Your task to perform on an android device: search for accent chairs on article.com Image 0: 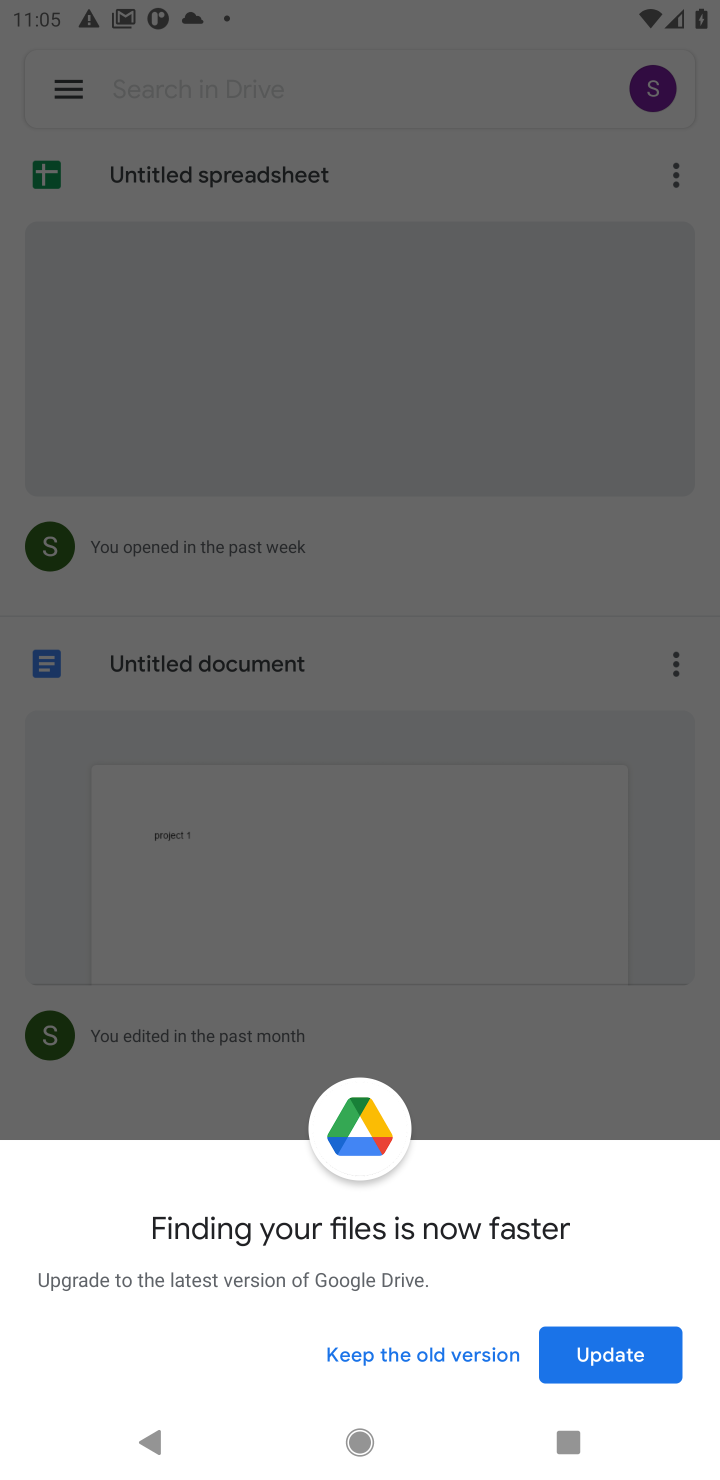
Step 0: press home button
Your task to perform on an android device: search for accent chairs on article.com Image 1: 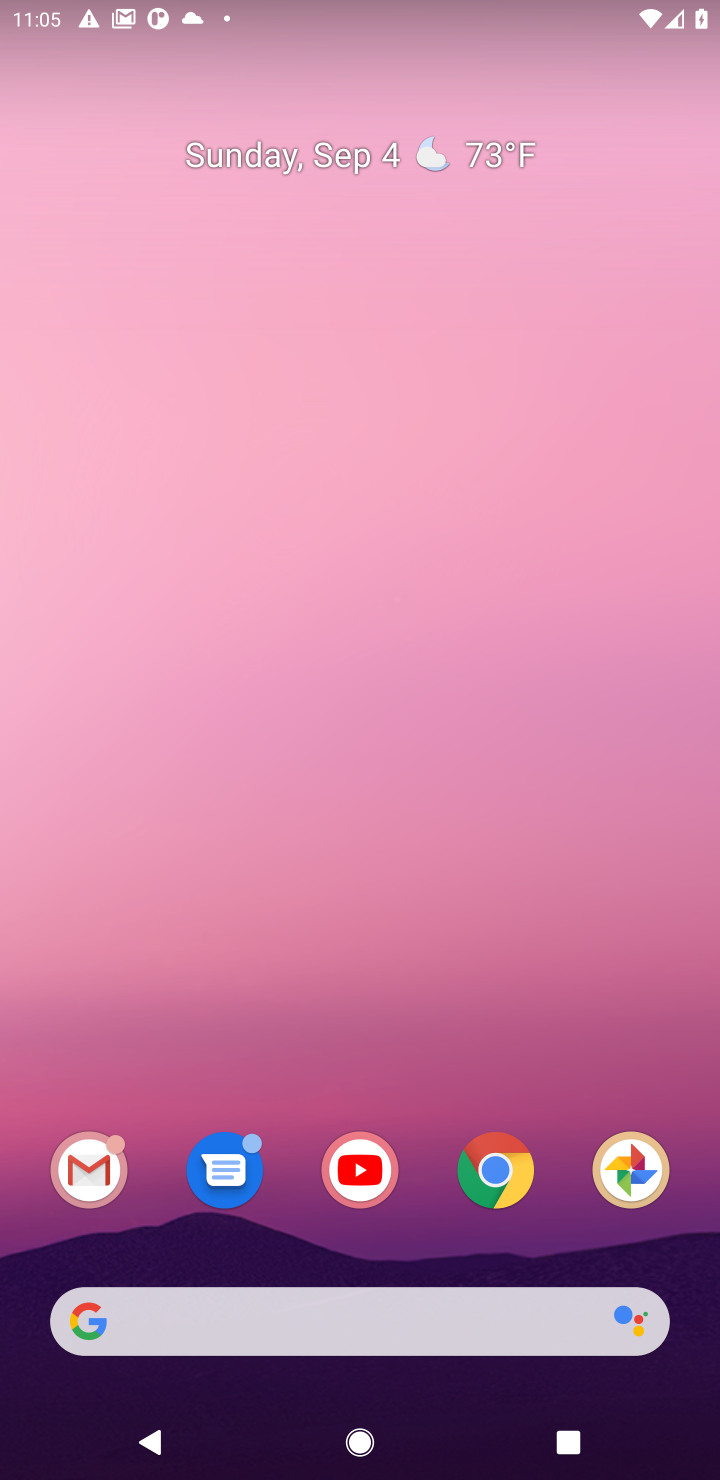
Step 1: drag from (375, 1273) to (472, 4)
Your task to perform on an android device: search for accent chairs on article.com Image 2: 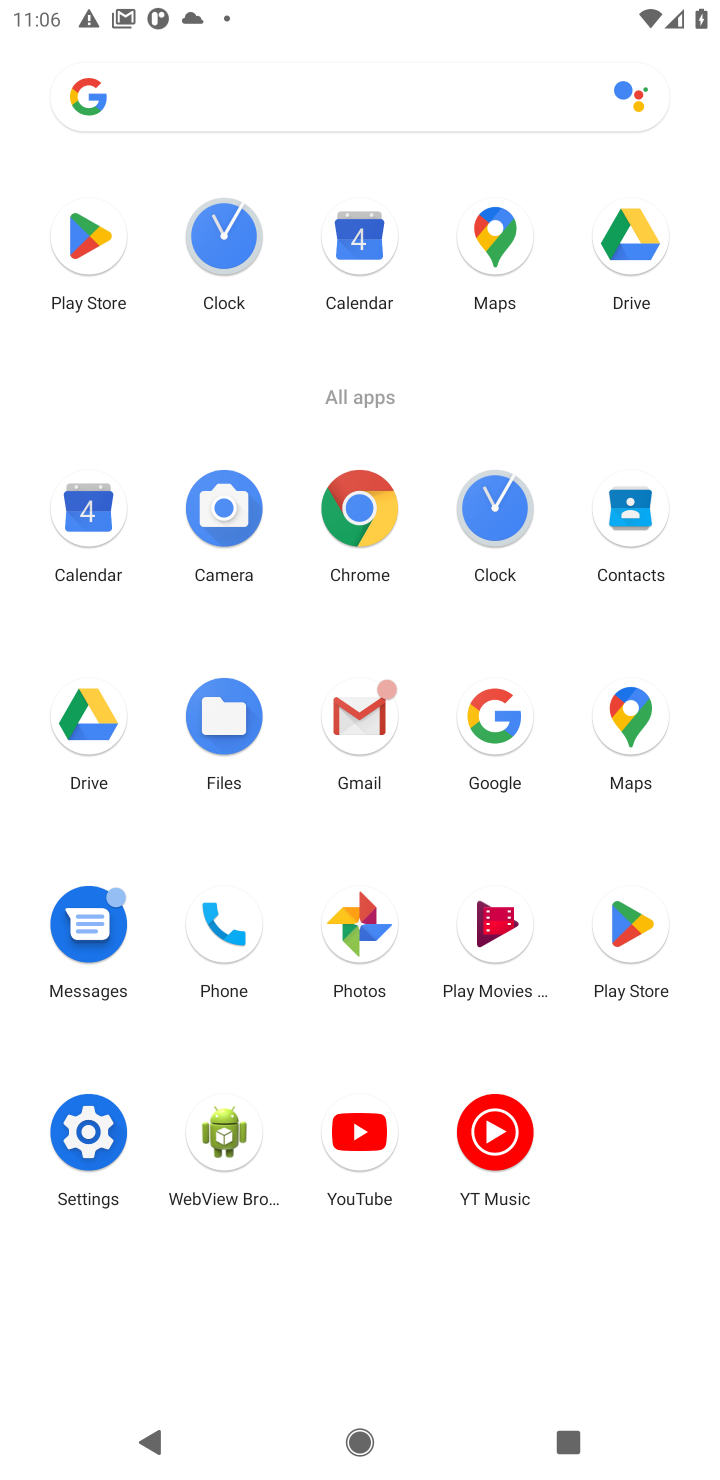
Step 2: click (343, 475)
Your task to perform on an android device: search for accent chairs on article.com Image 3: 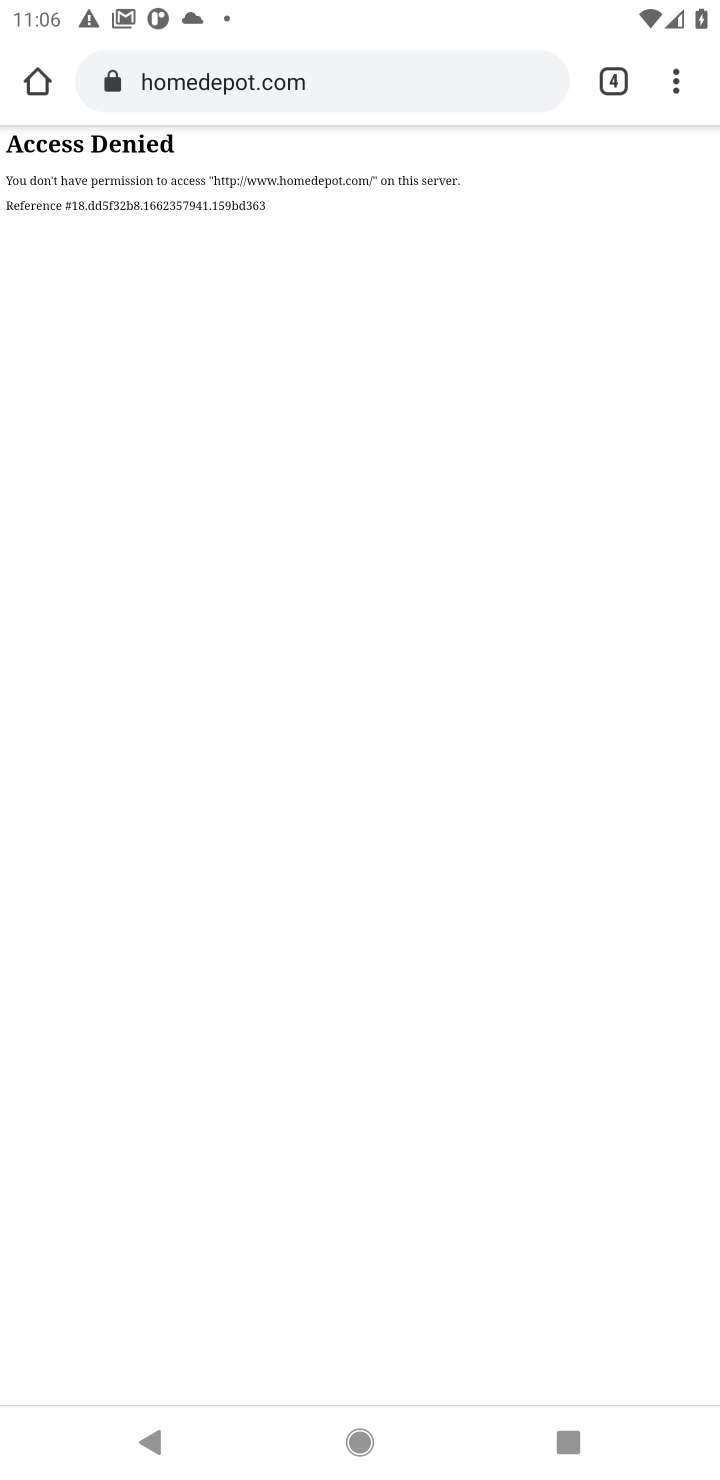
Step 3: click (612, 98)
Your task to perform on an android device: search for accent chairs on article.com Image 4: 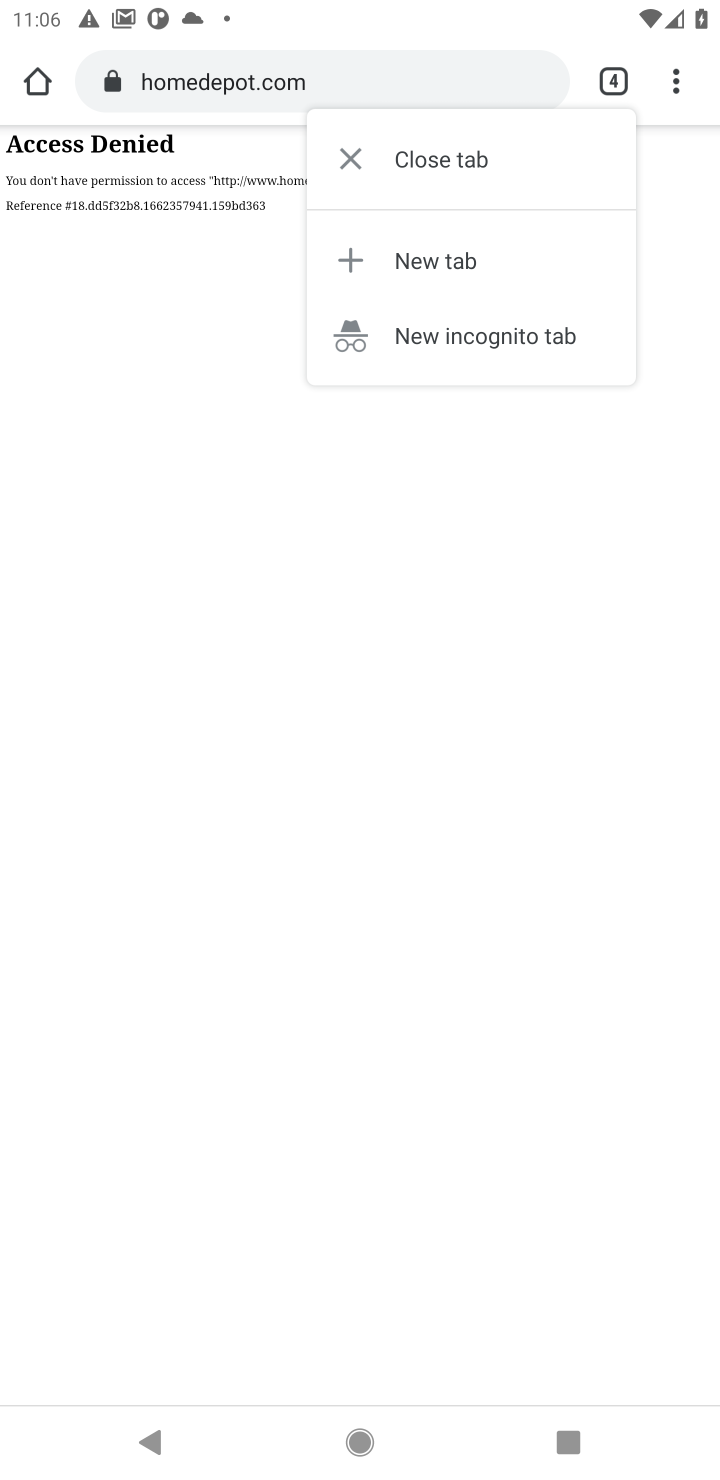
Step 4: click (449, 244)
Your task to perform on an android device: search for accent chairs on article.com Image 5: 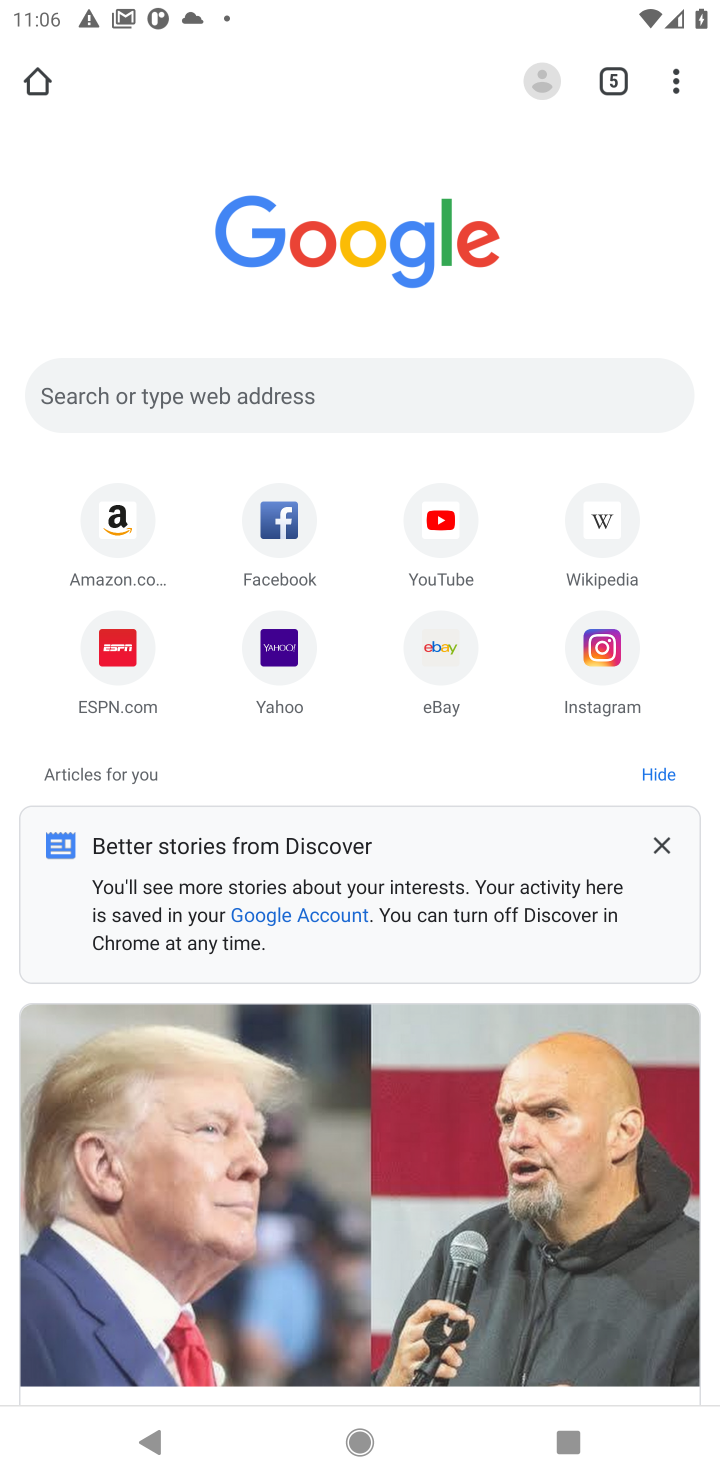
Step 5: click (311, 407)
Your task to perform on an android device: search for accent chairs on article.com Image 6: 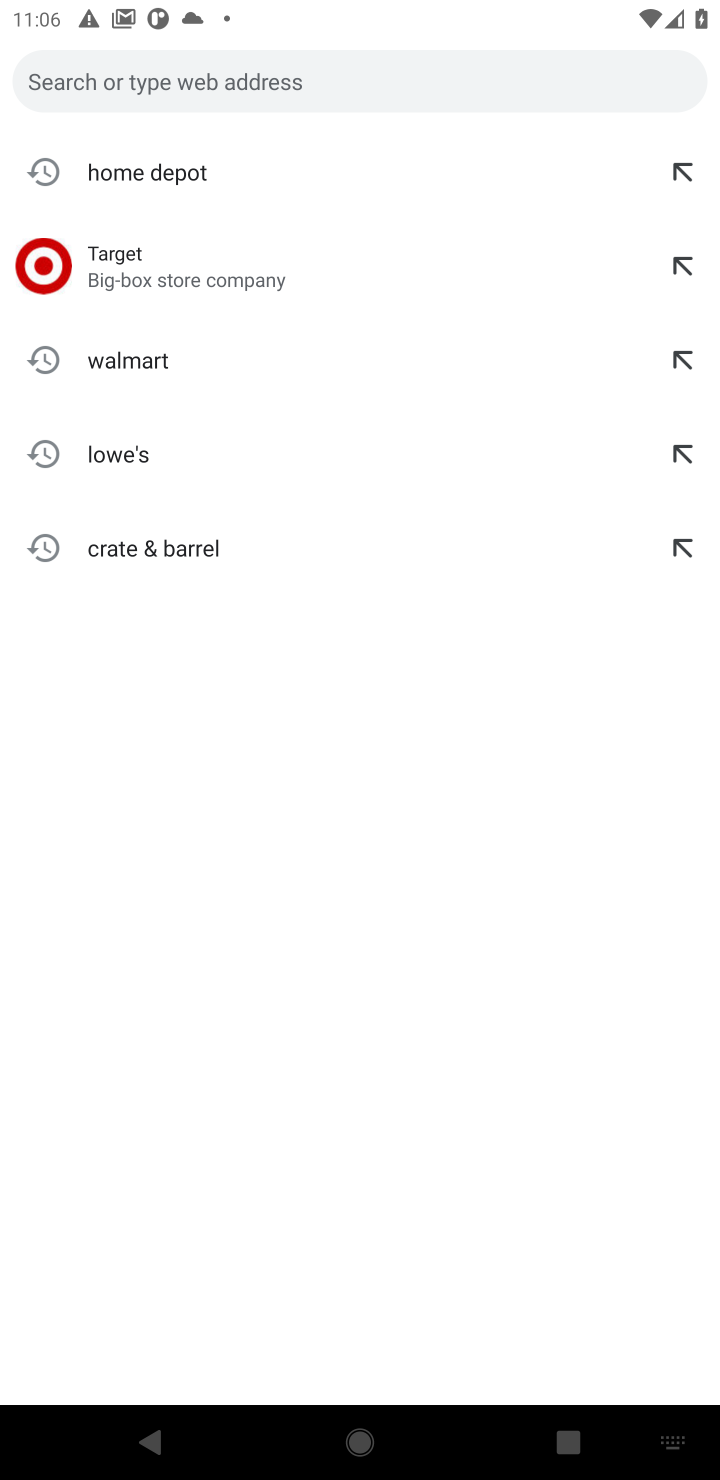
Step 6: type "article.com"
Your task to perform on an android device: search for accent chairs on article.com Image 7: 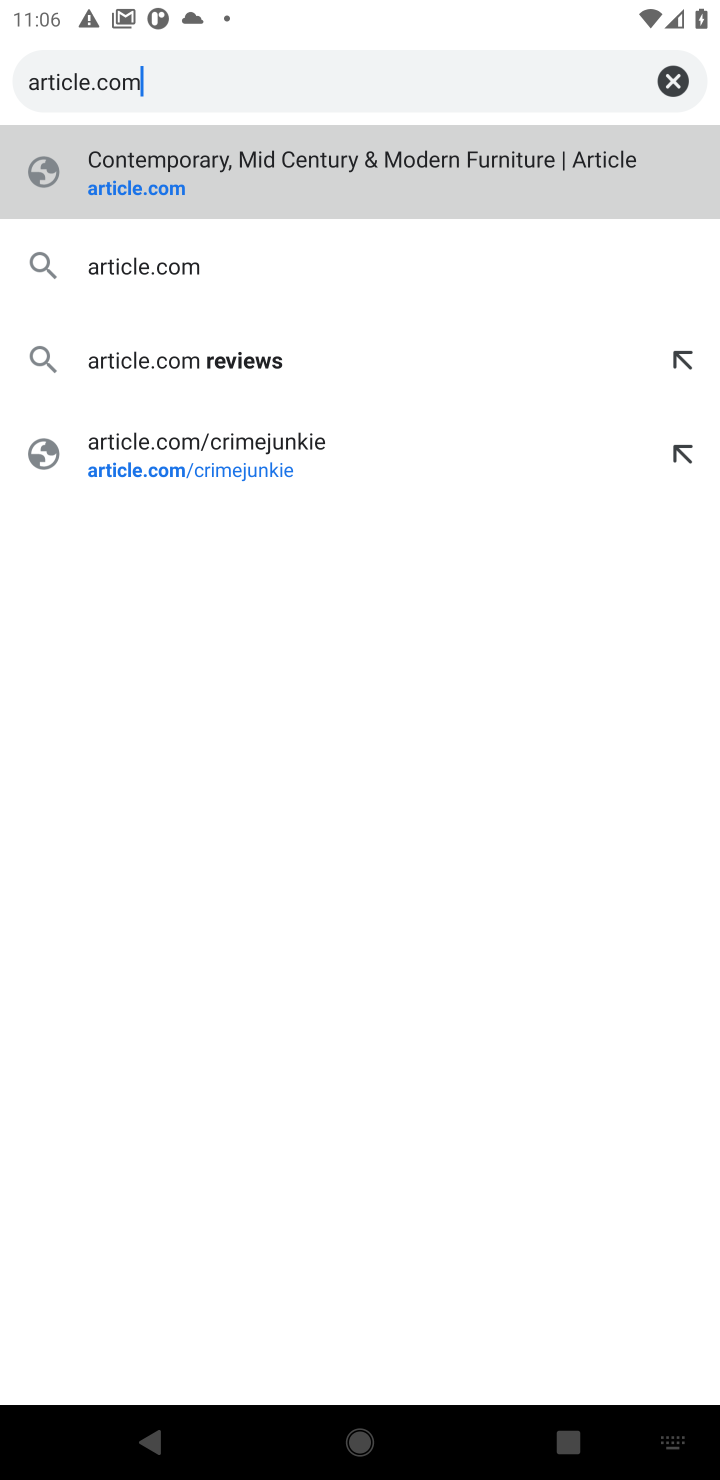
Step 7: click (203, 162)
Your task to perform on an android device: search for accent chairs on article.com Image 8: 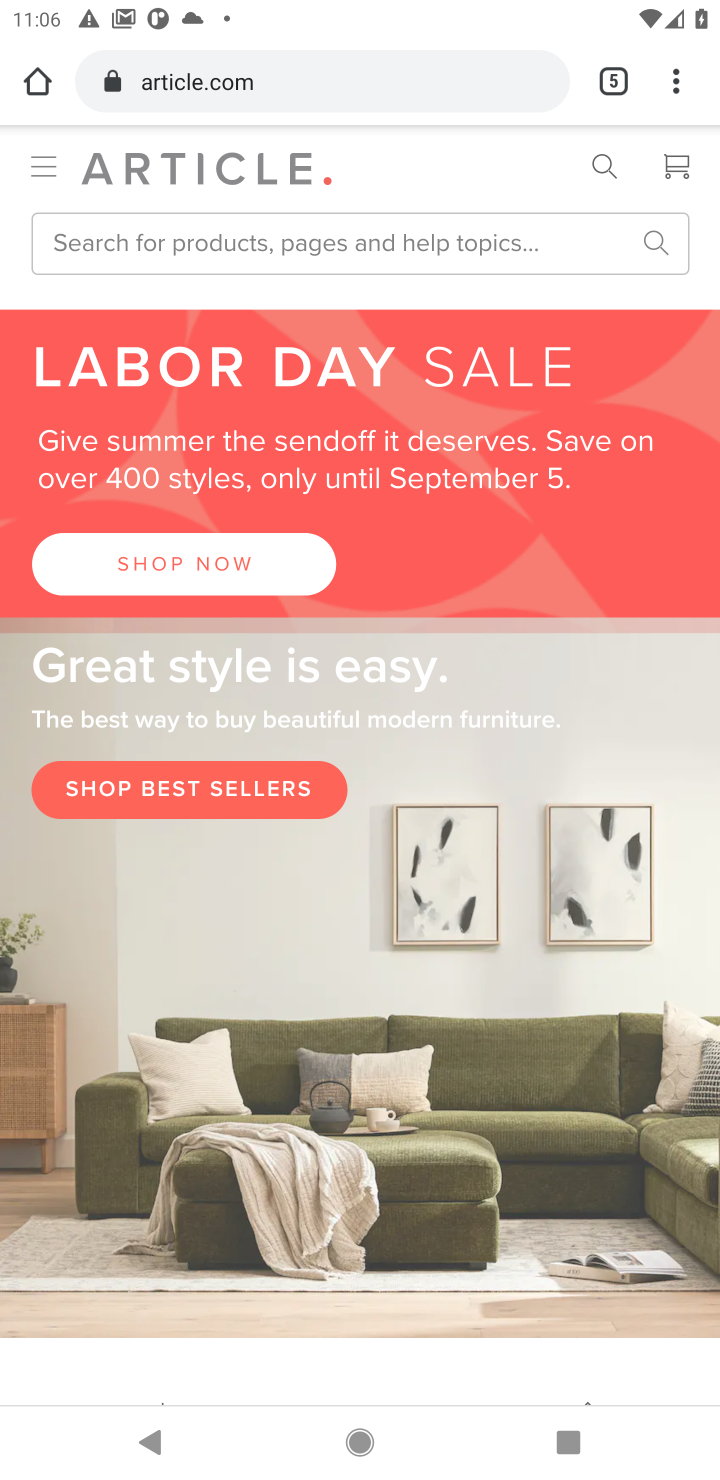
Step 8: click (212, 261)
Your task to perform on an android device: search for accent chairs on article.com Image 9: 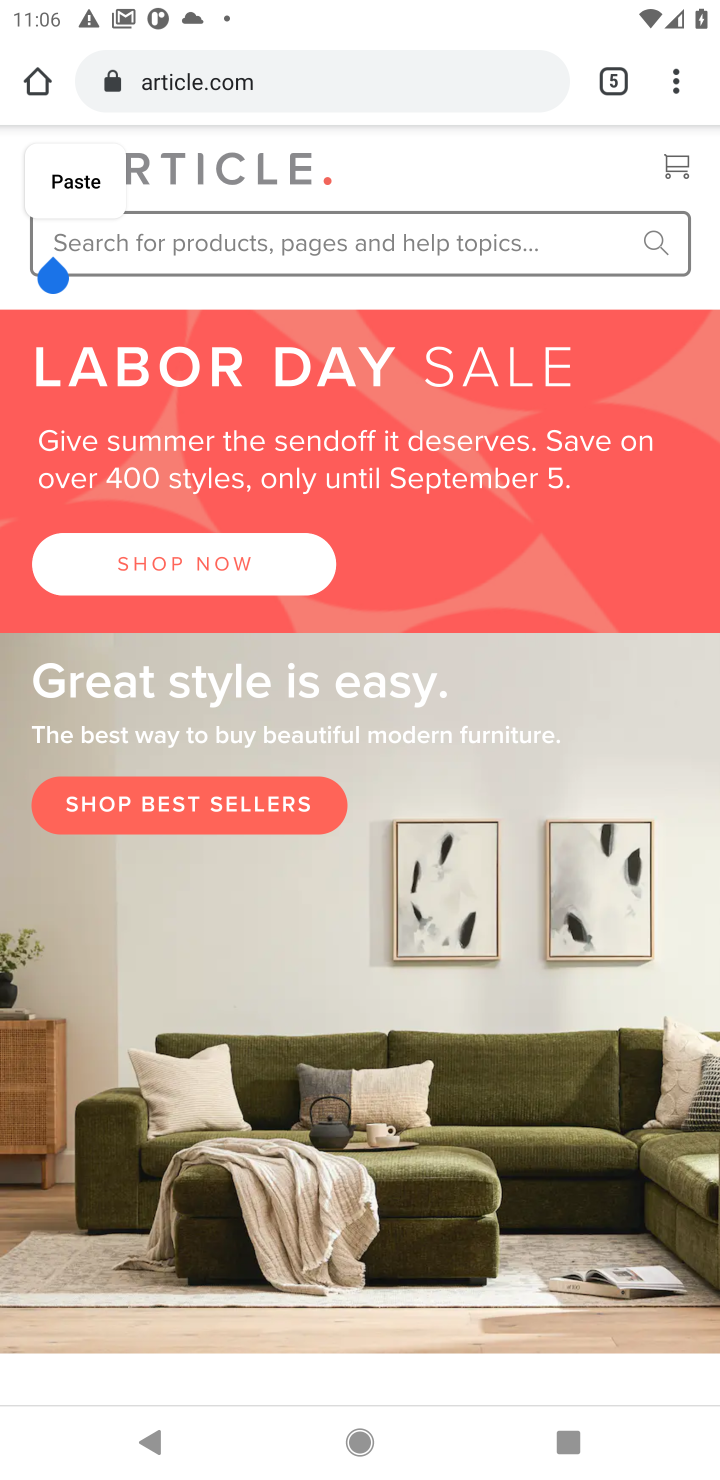
Step 9: type "accent chairs"
Your task to perform on an android device: search for accent chairs on article.com Image 10: 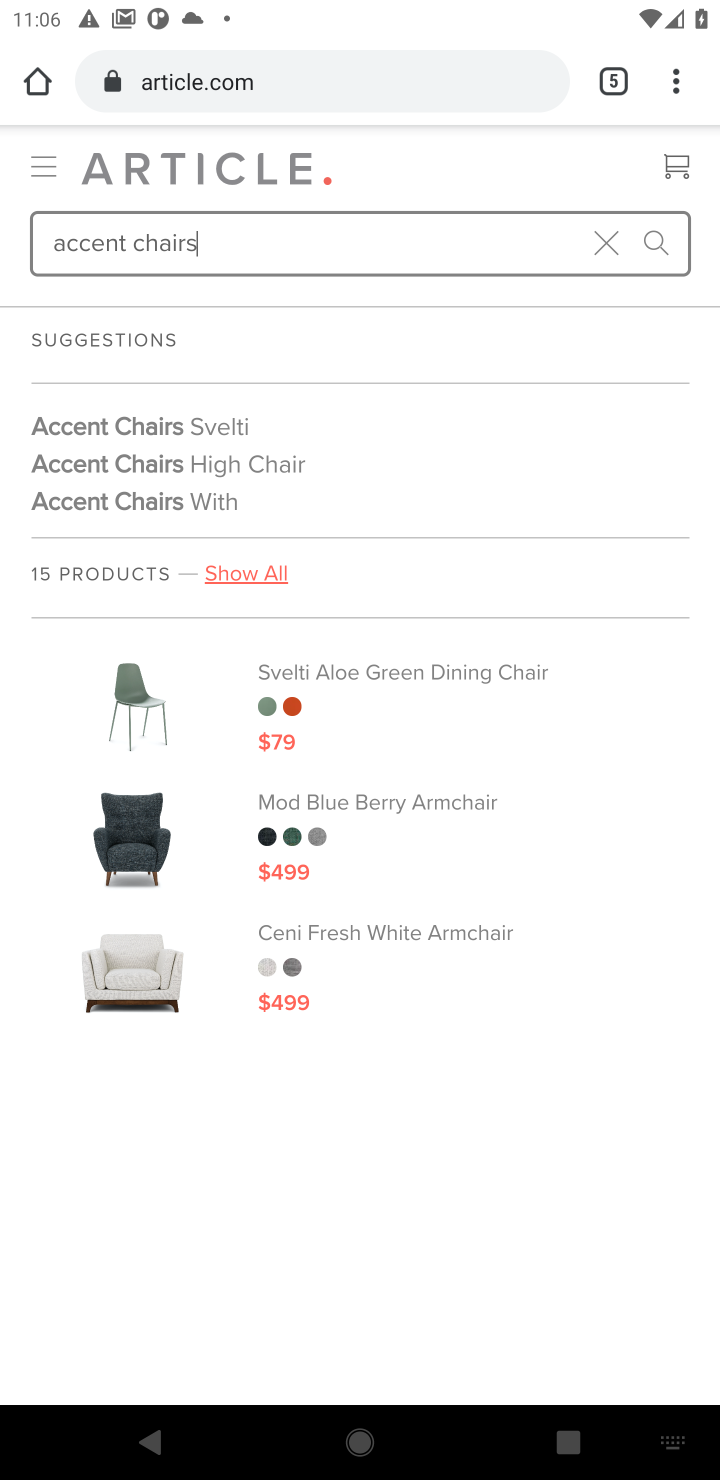
Step 10: click (653, 239)
Your task to perform on an android device: search for accent chairs on article.com Image 11: 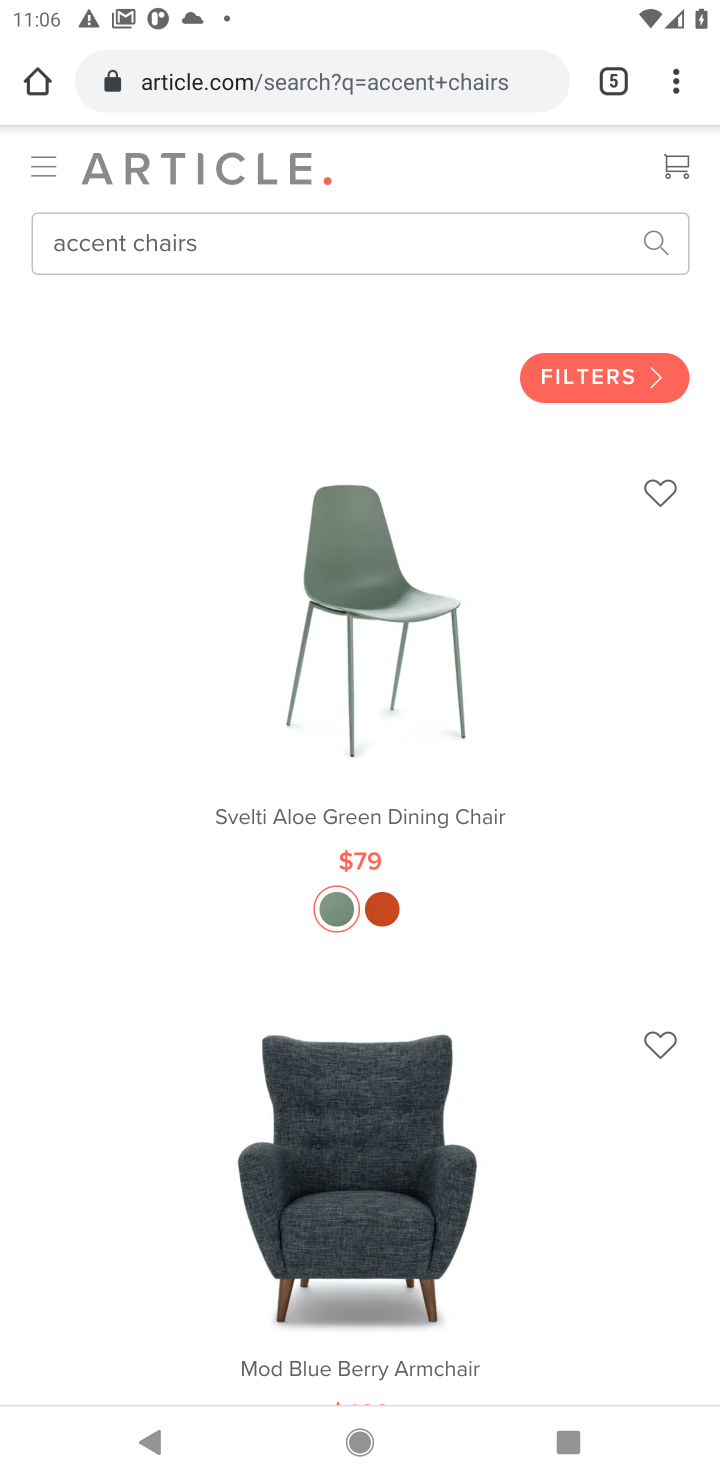
Step 11: task complete